Your task to perform on an android device: toggle location history Image 0: 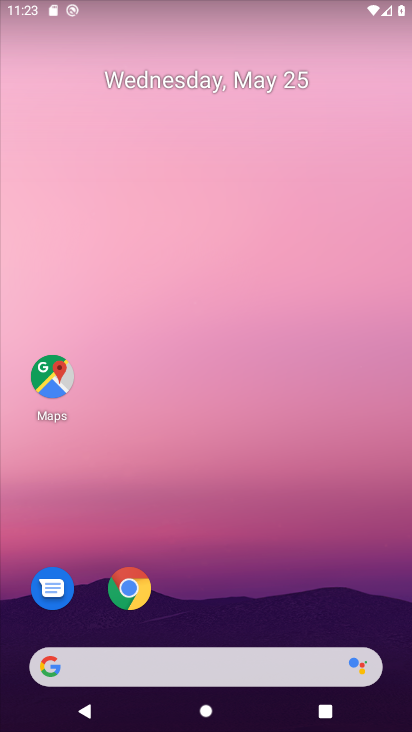
Step 0: click (54, 376)
Your task to perform on an android device: toggle location history Image 1: 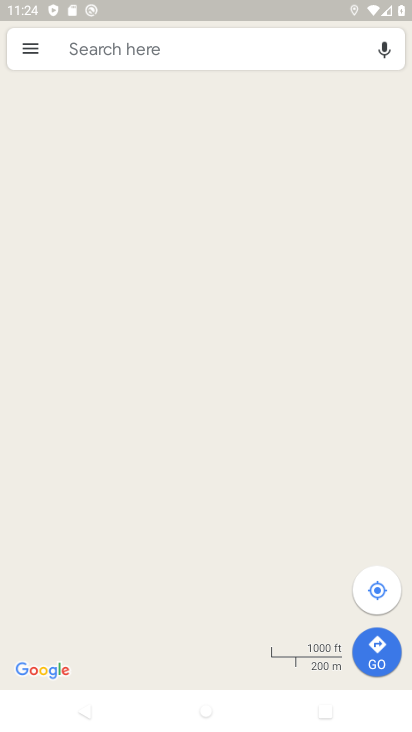
Step 1: click (29, 44)
Your task to perform on an android device: toggle location history Image 2: 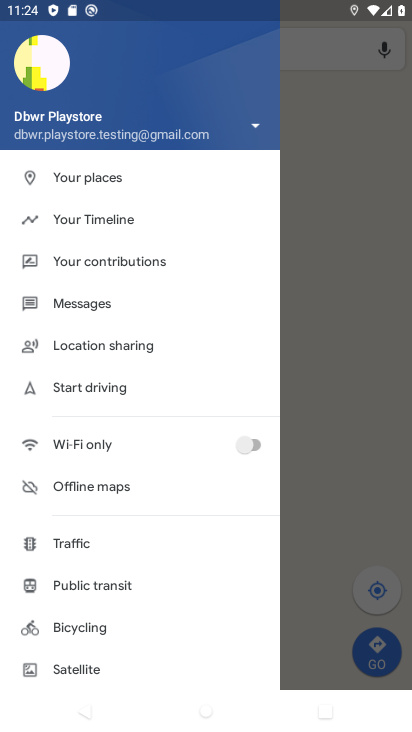
Step 2: click (93, 212)
Your task to perform on an android device: toggle location history Image 3: 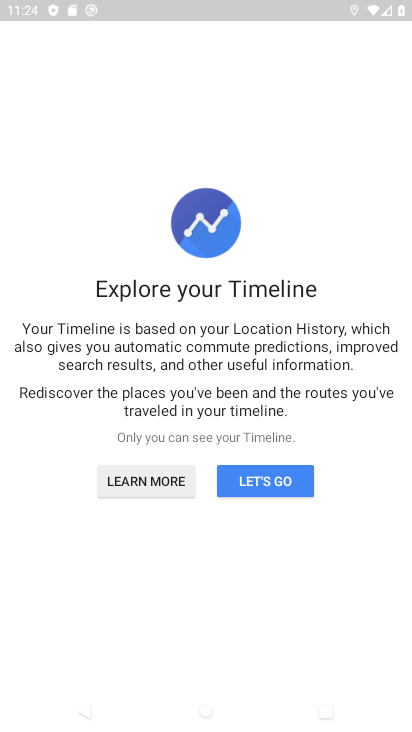
Step 3: click (253, 484)
Your task to perform on an android device: toggle location history Image 4: 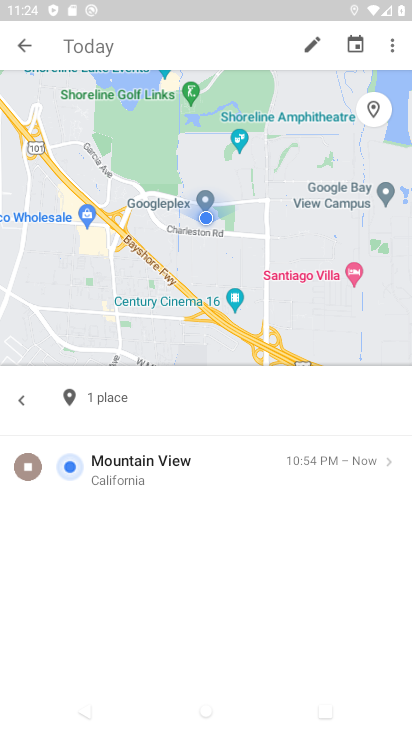
Step 4: click (392, 43)
Your task to perform on an android device: toggle location history Image 5: 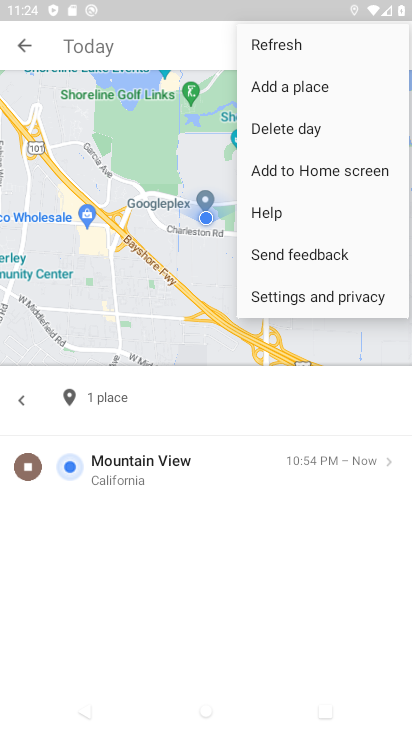
Step 5: click (327, 293)
Your task to perform on an android device: toggle location history Image 6: 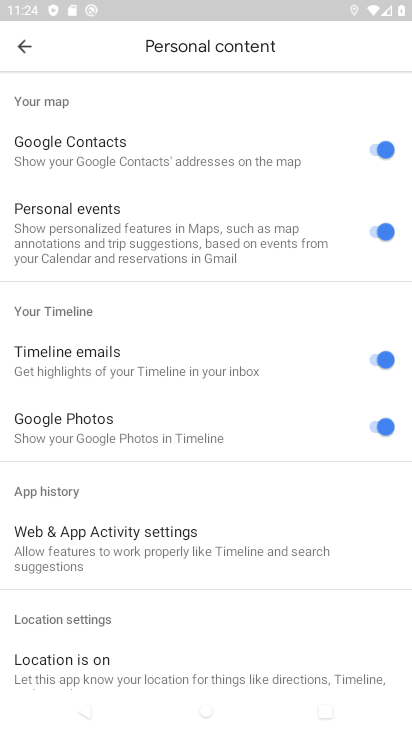
Step 6: drag from (227, 572) to (165, 343)
Your task to perform on an android device: toggle location history Image 7: 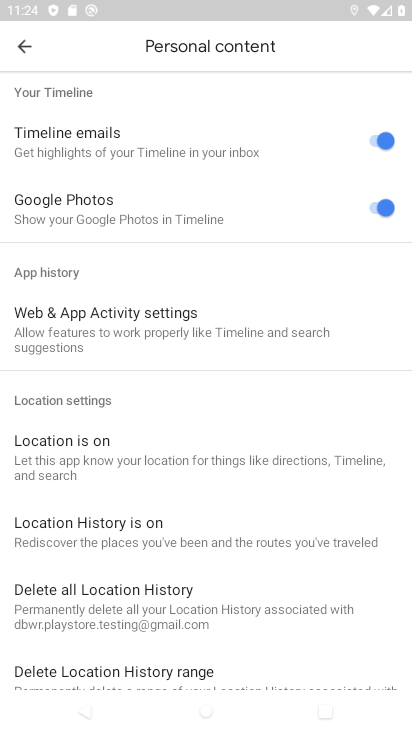
Step 7: click (95, 527)
Your task to perform on an android device: toggle location history Image 8: 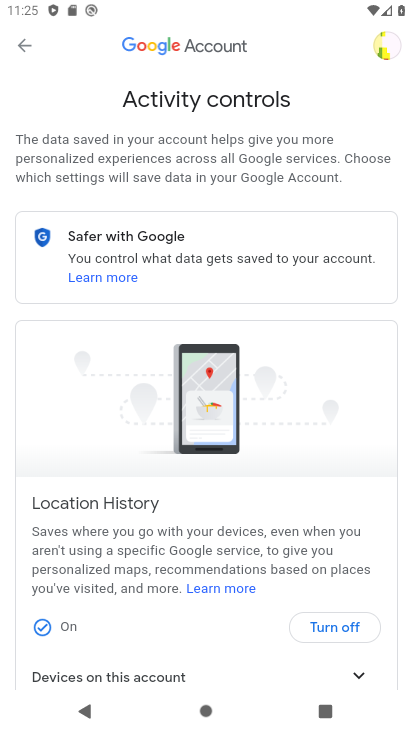
Step 8: drag from (267, 543) to (260, 326)
Your task to perform on an android device: toggle location history Image 9: 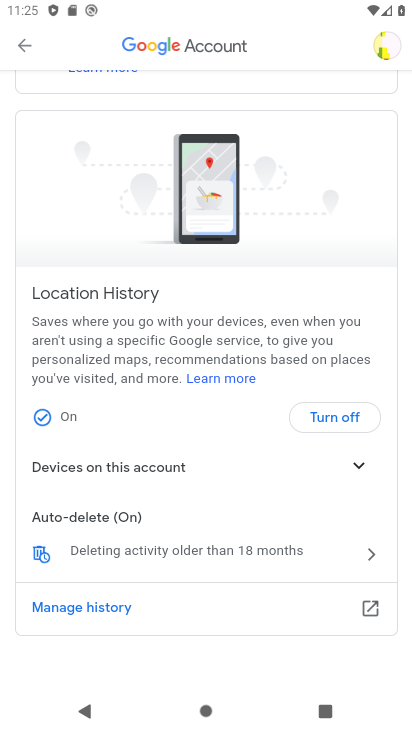
Step 9: click (327, 410)
Your task to perform on an android device: toggle location history Image 10: 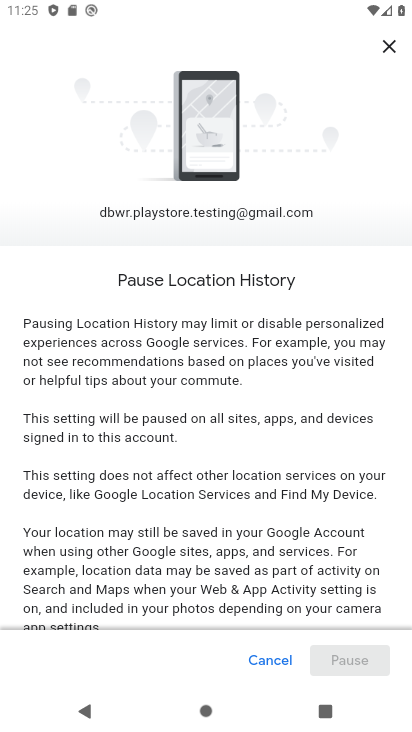
Step 10: drag from (293, 530) to (246, 203)
Your task to perform on an android device: toggle location history Image 11: 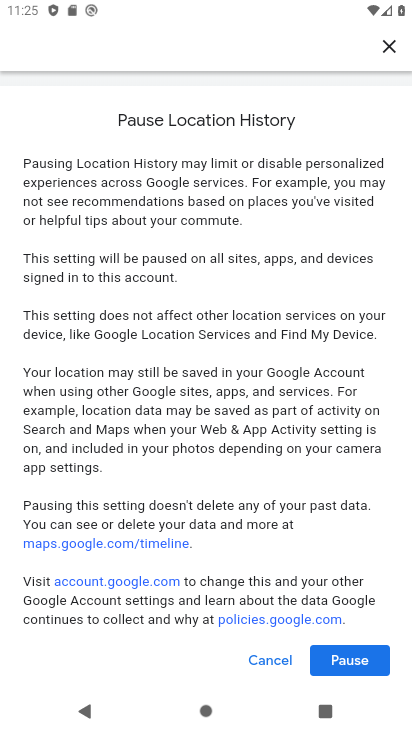
Step 11: click (349, 660)
Your task to perform on an android device: toggle location history Image 12: 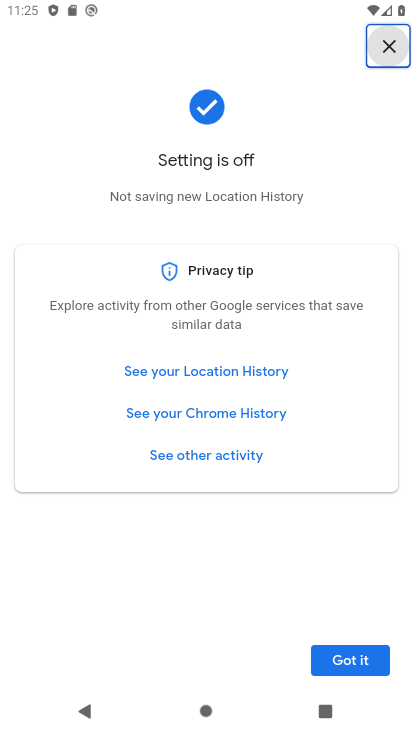
Step 12: click (351, 658)
Your task to perform on an android device: toggle location history Image 13: 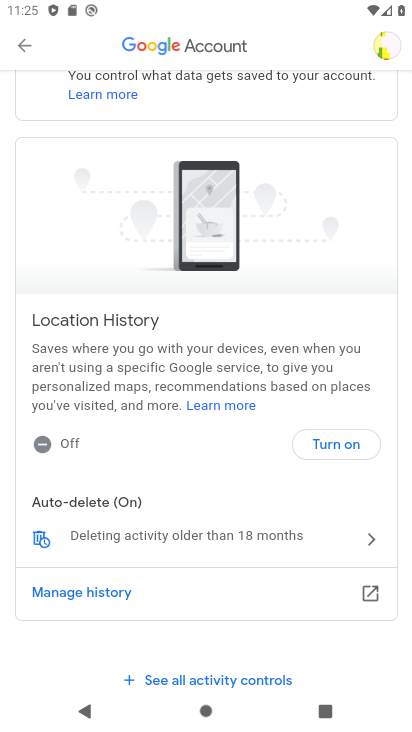
Step 13: task complete